Your task to perform on an android device: Open sound settings Image 0: 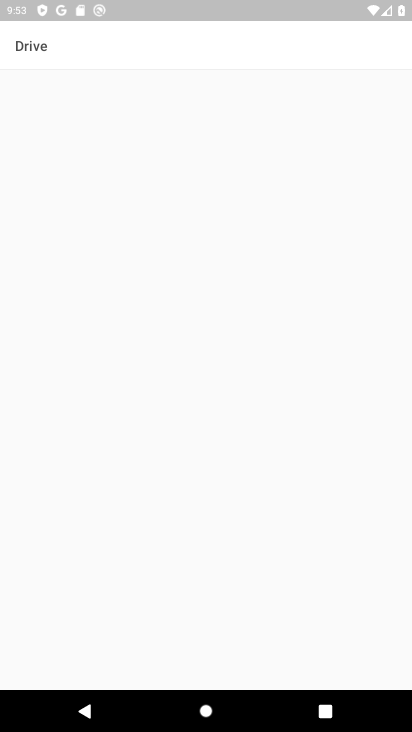
Step 0: press home button
Your task to perform on an android device: Open sound settings Image 1: 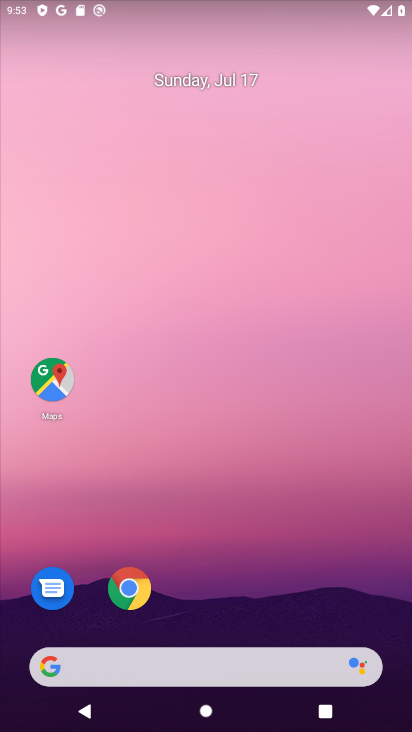
Step 1: drag from (210, 637) to (216, 61)
Your task to perform on an android device: Open sound settings Image 2: 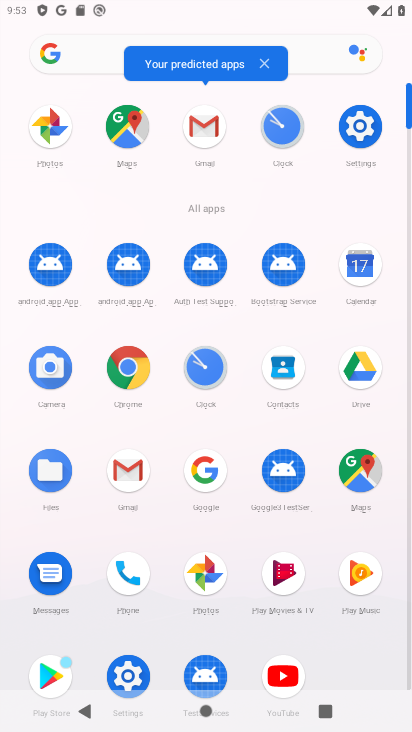
Step 2: click (360, 112)
Your task to perform on an android device: Open sound settings Image 3: 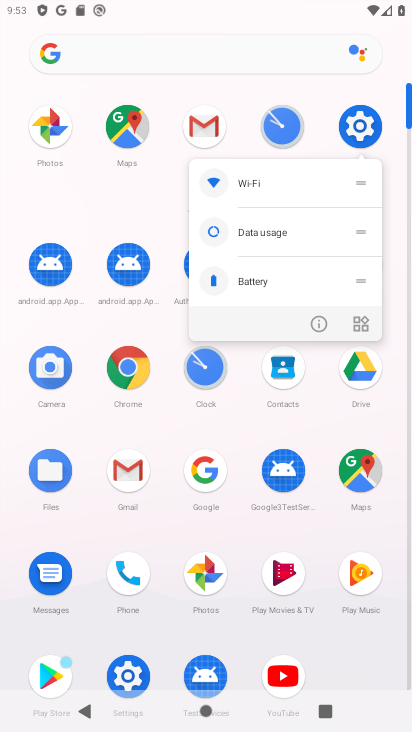
Step 3: click (357, 119)
Your task to perform on an android device: Open sound settings Image 4: 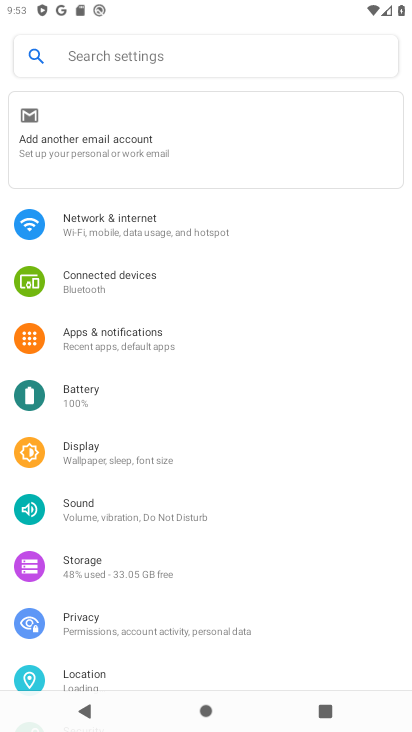
Step 4: click (74, 501)
Your task to perform on an android device: Open sound settings Image 5: 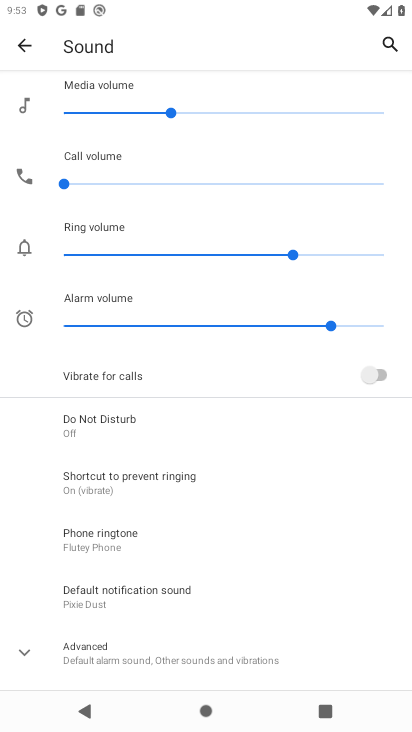
Step 5: task complete